Your task to perform on an android device: Go to location settings Image 0: 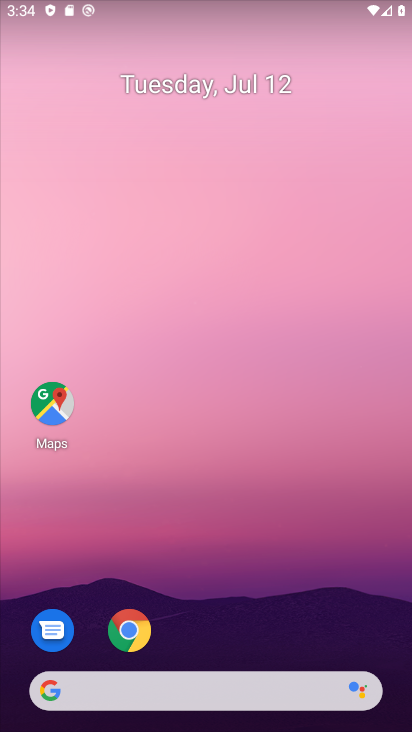
Step 0: drag from (253, 582) to (338, 245)
Your task to perform on an android device: Go to location settings Image 1: 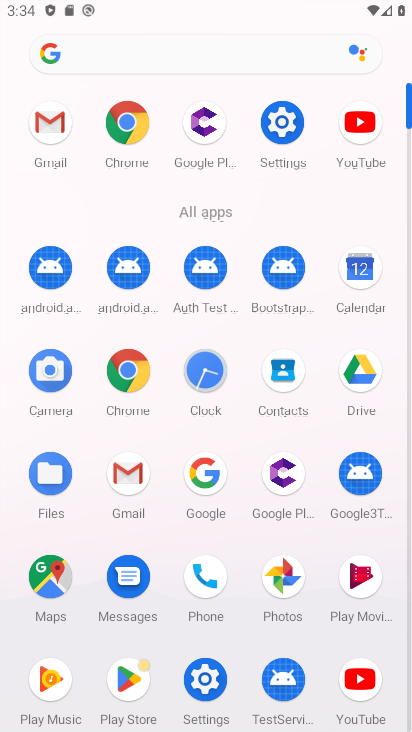
Step 1: click (269, 115)
Your task to perform on an android device: Go to location settings Image 2: 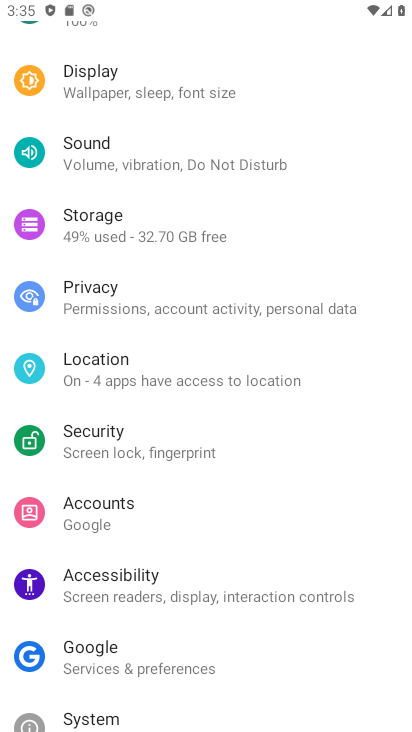
Step 2: click (127, 381)
Your task to perform on an android device: Go to location settings Image 3: 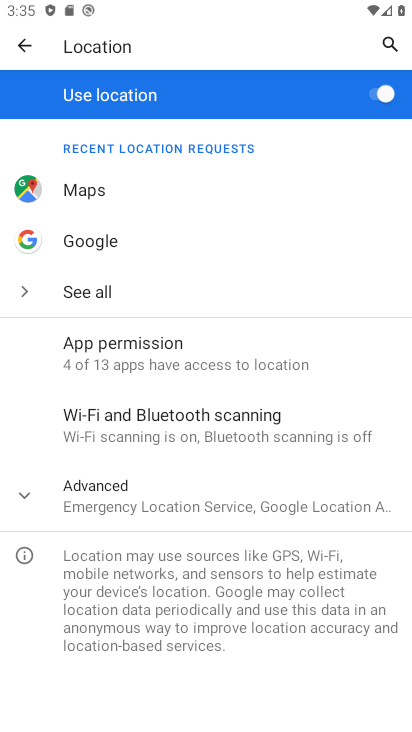
Step 3: task complete